Your task to perform on an android device: turn on notifications settings in the gmail app Image 0: 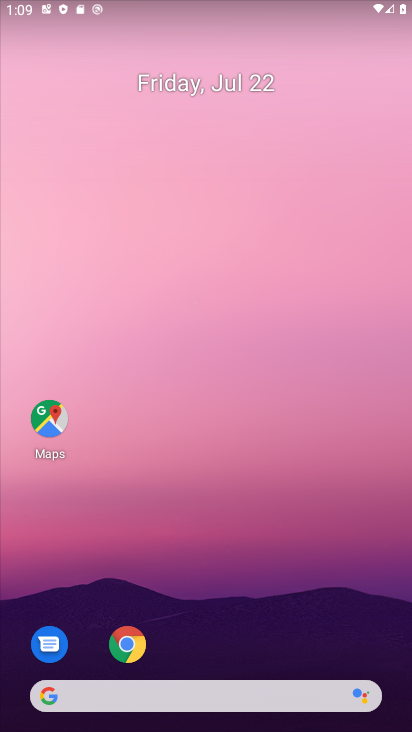
Step 0: press home button
Your task to perform on an android device: turn on notifications settings in the gmail app Image 1: 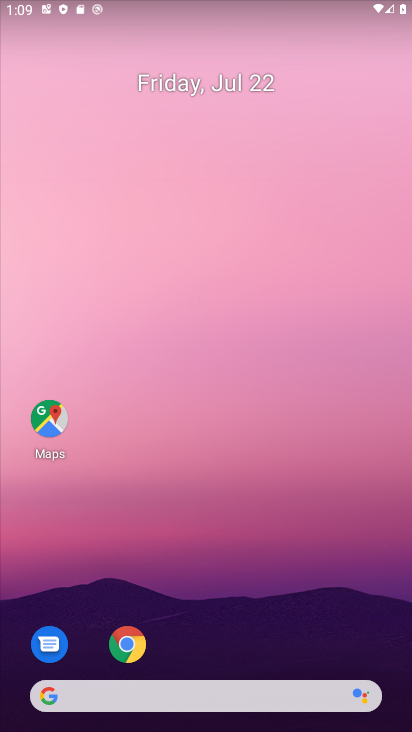
Step 1: drag from (213, 660) to (230, 60)
Your task to perform on an android device: turn on notifications settings in the gmail app Image 2: 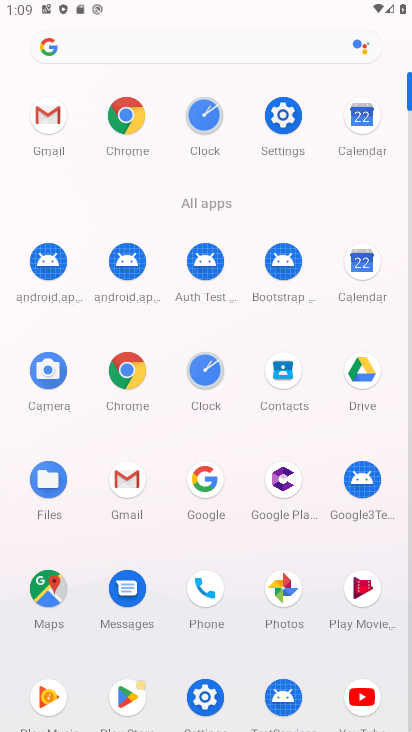
Step 2: click (43, 106)
Your task to perform on an android device: turn on notifications settings in the gmail app Image 3: 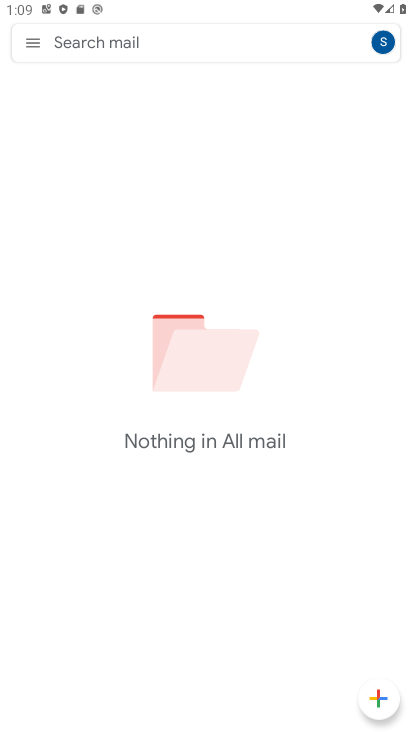
Step 3: click (32, 44)
Your task to perform on an android device: turn on notifications settings in the gmail app Image 4: 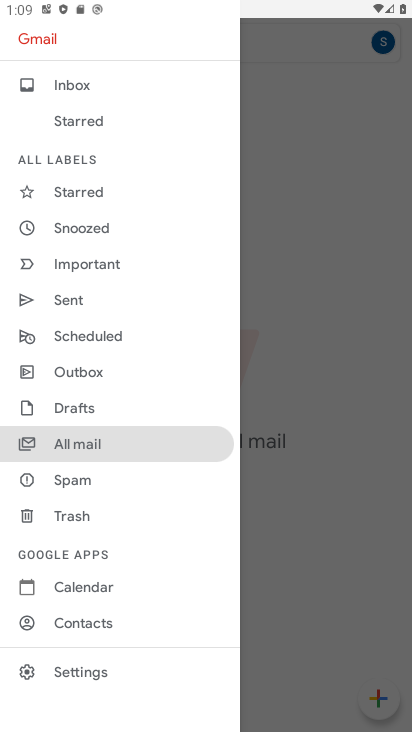
Step 4: click (116, 667)
Your task to perform on an android device: turn on notifications settings in the gmail app Image 5: 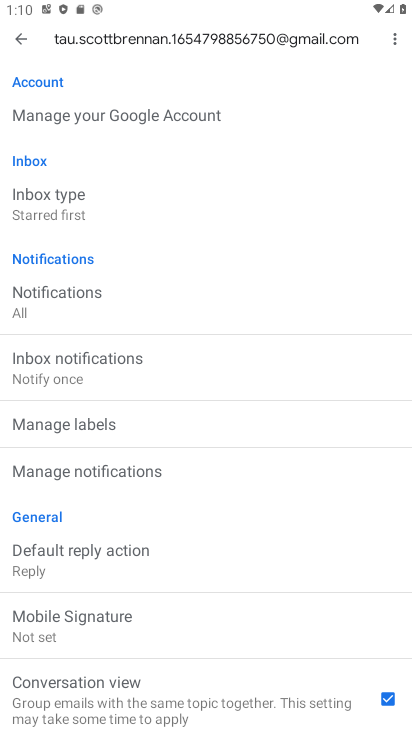
Step 5: click (25, 38)
Your task to perform on an android device: turn on notifications settings in the gmail app Image 6: 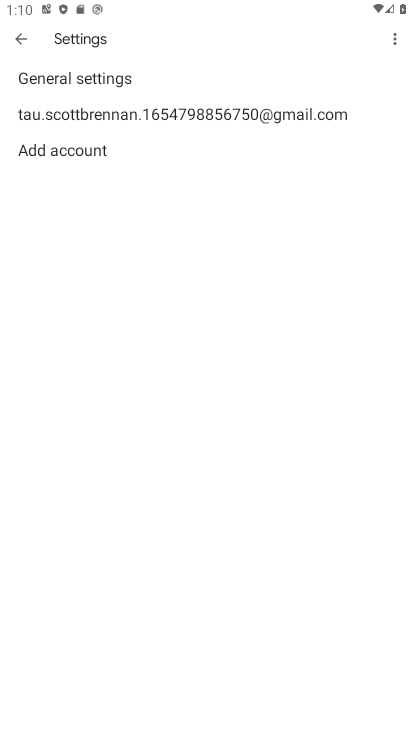
Step 6: click (108, 72)
Your task to perform on an android device: turn on notifications settings in the gmail app Image 7: 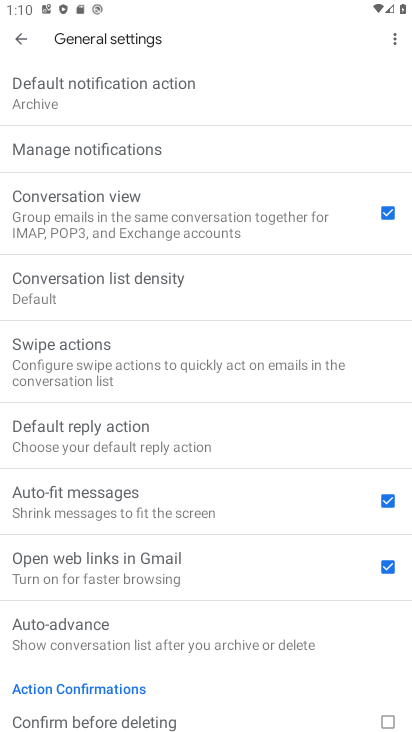
Step 7: click (149, 148)
Your task to perform on an android device: turn on notifications settings in the gmail app Image 8: 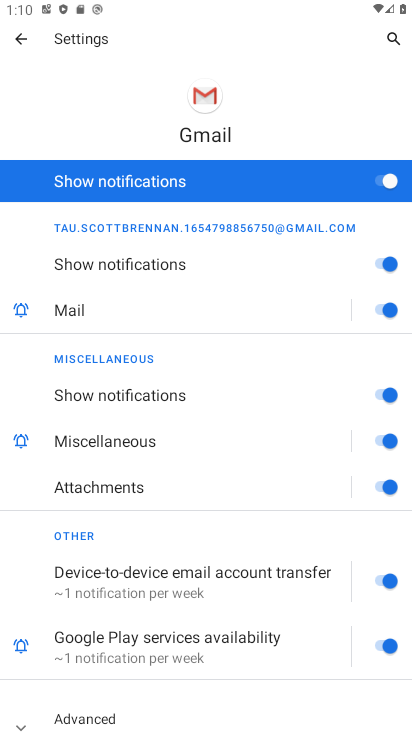
Step 8: task complete